Your task to perform on an android device: set the stopwatch Image 0: 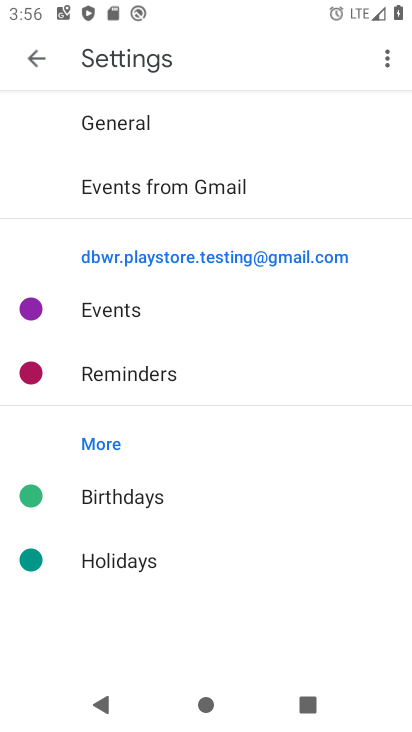
Step 0: press home button
Your task to perform on an android device: set the stopwatch Image 1: 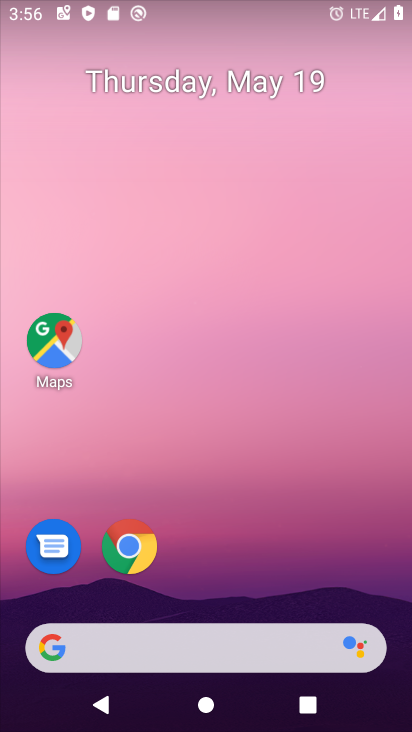
Step 1: drag from (225, 553) to (244, 152)
Your task to perform on an android device: set the stopwatch Image 2: 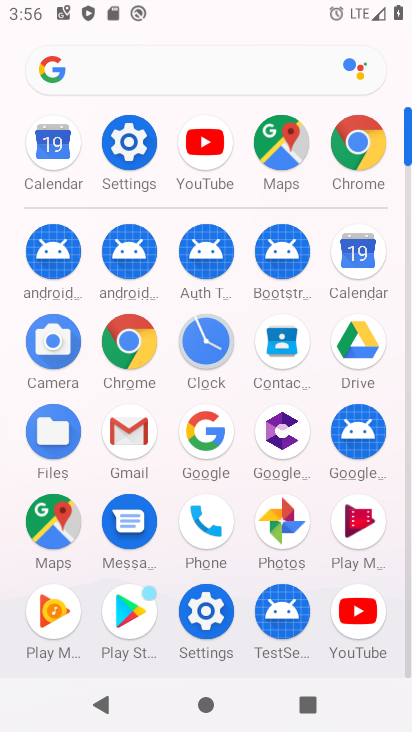
Step 2: click (200, 344)
Your task to perform on an android device: set the stopwatch Image 3: 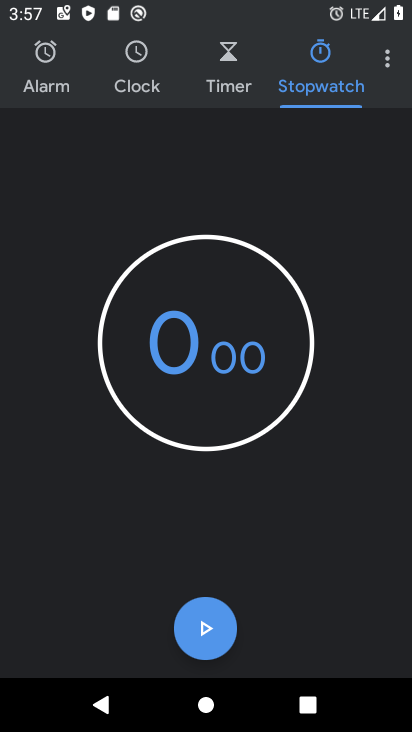
Step 3: click (204, 623)
Your task to perform on an android device: set the stopwatch Image 4: 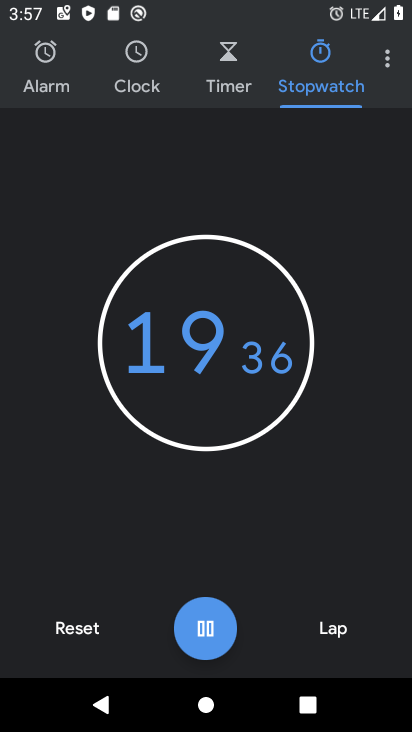
Step 4: click (85, 635)
Your task to perform on an android device: set the stopwatch Image 5: 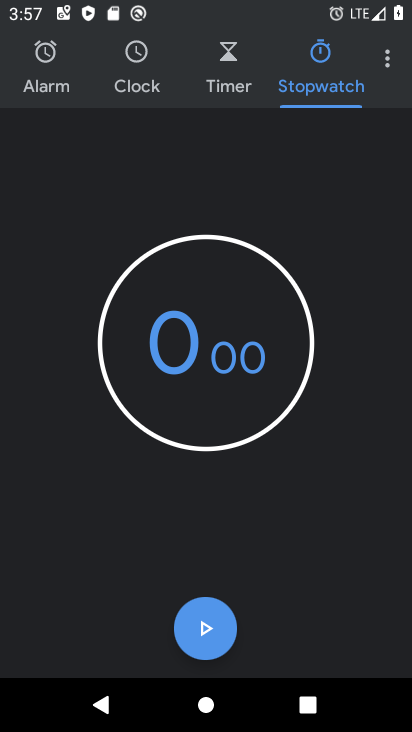
Step 5: task complete